Your task to perform on an android device: see sites visited before in the chrome app Image 0: 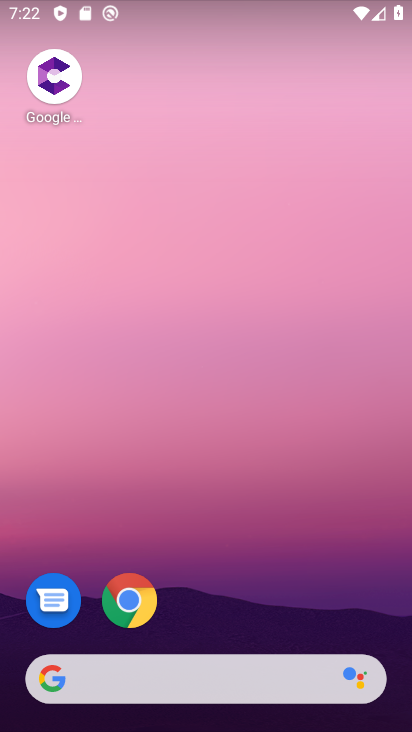
Step 0: click (134, 606)
Your task to perform on an android device: see sites visited before in the chrome app Image 1: 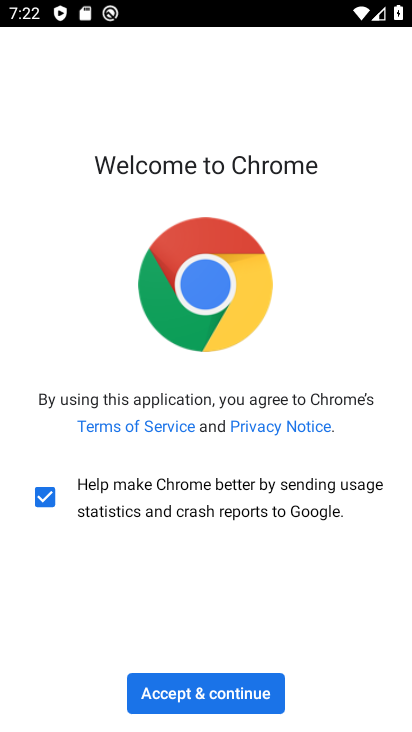
Step 1: click (231, 693)
Your task to perform on an android device: see sites visited before in the chrome app Image 2: 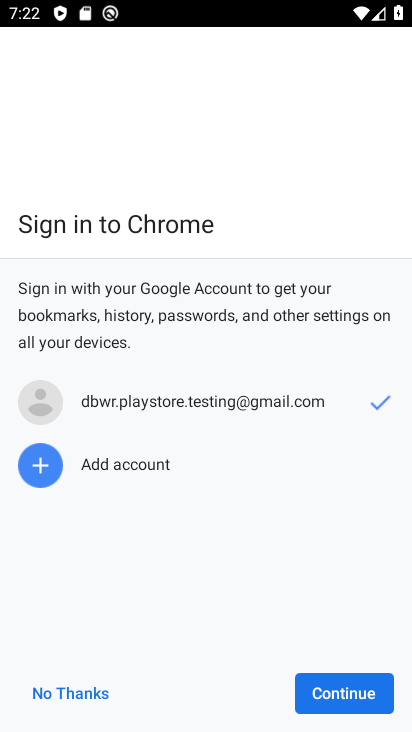
Step 2: click (349, 699)
Your task to perform on an android device: see sites visited before in the chrome app Image 3: 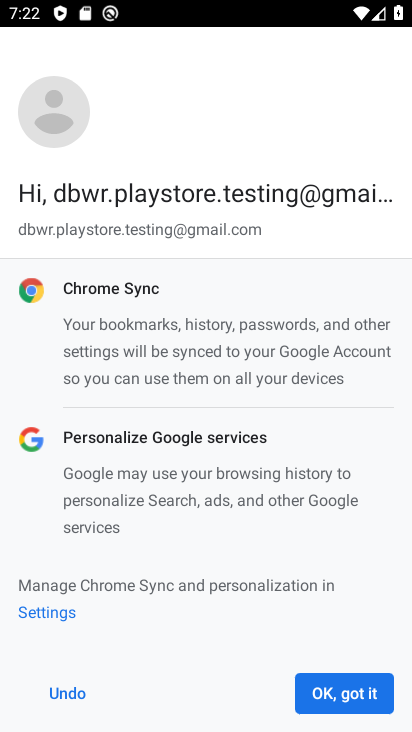
Step 3: click (349, 699)
Your task to perform on an android device: see sites visited before in the chrome app Image 4: 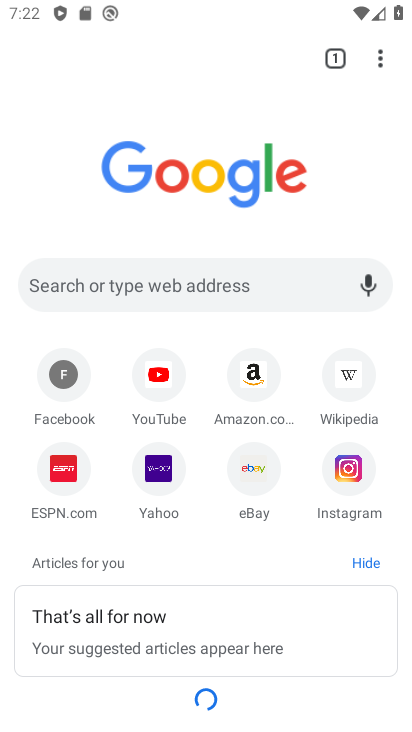
Step 4: task complete